Your task to perform on an android device: check out phone information Image 0: 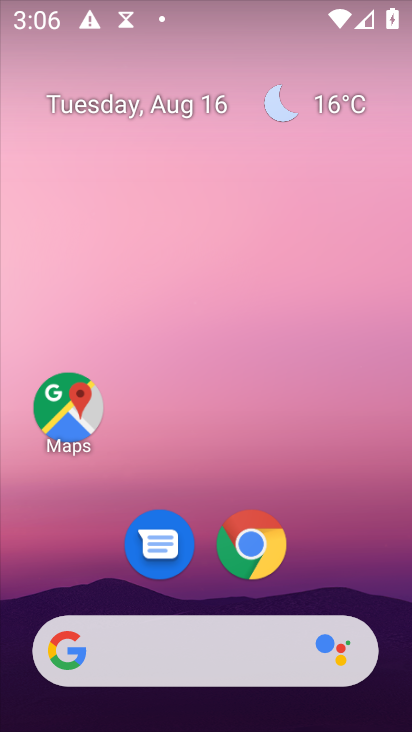
Step 0: drag from (181, 656) to (251, 2)
Your task to perform on an android device: check out phone information Image 1: 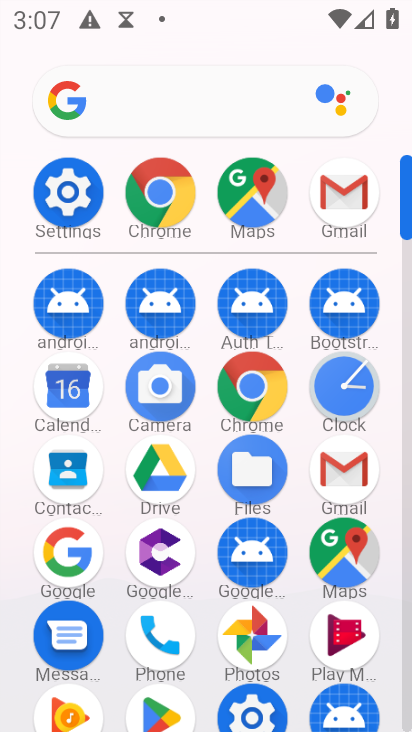
Step 1: click (65, 193)
Your task to perform on an android device: check out phone information Image 2: 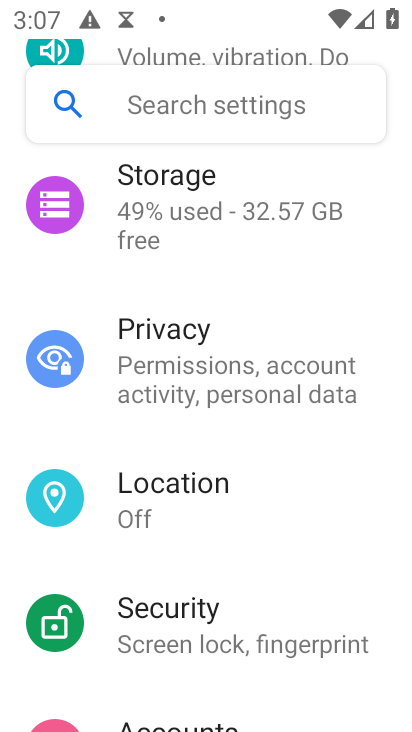
Step 2: drag from (167, 558) to (229, 438)
Your task to perform on an android device: check out phone information Image 3: 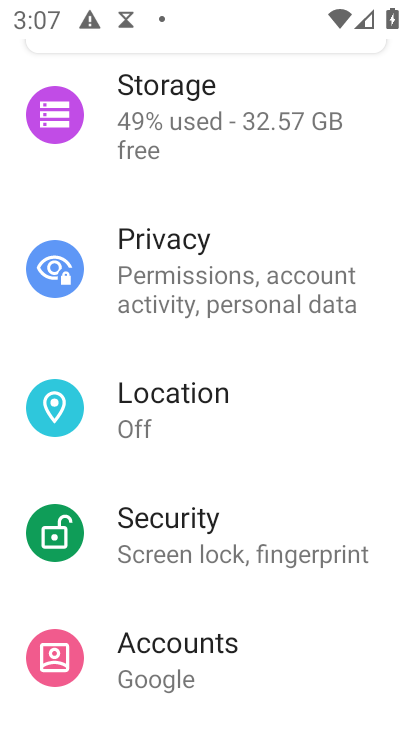
Step 3: drag from (153, 588) to (214, 478)
Your task to perform on an android device: check out phone information Image 4: 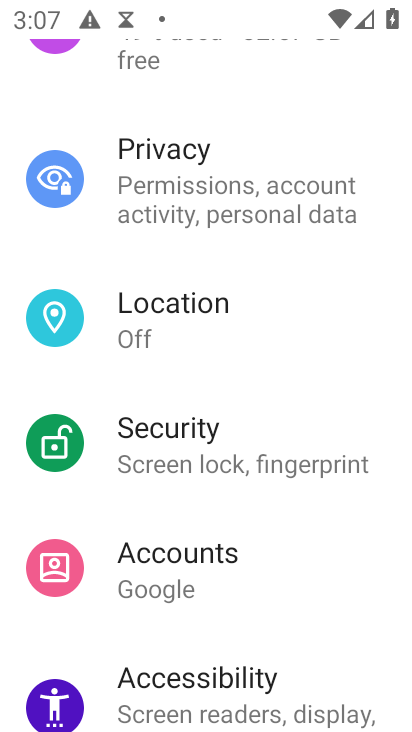
Step 4: drag from (153, 596) to (226, 474)
Your task to perform on an android device: check out phone information Image 5: 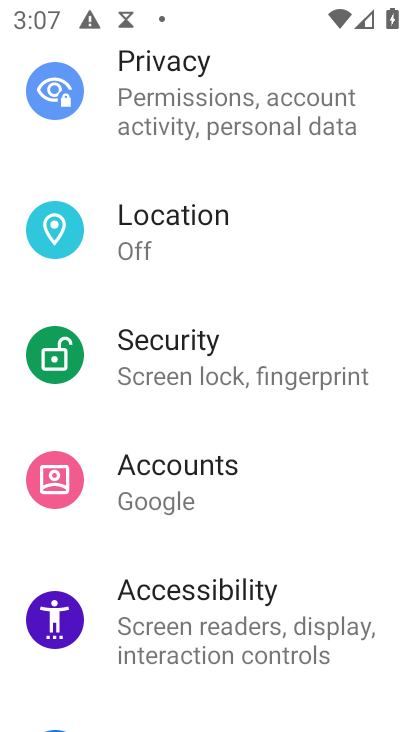
Step 5: drag from (173, 681) to (236, 501)
Your task to perform on an android device: check out phone information Image 6: 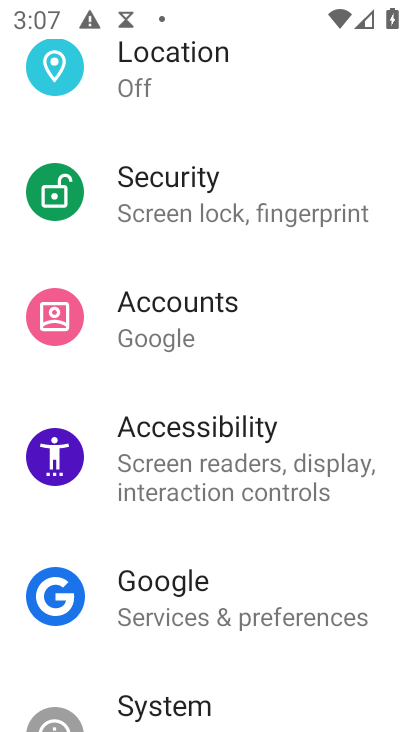
Step 6: drag from (131, 638) to (246, 453)
Your task to perform on an android device: check out phone information Image 7: 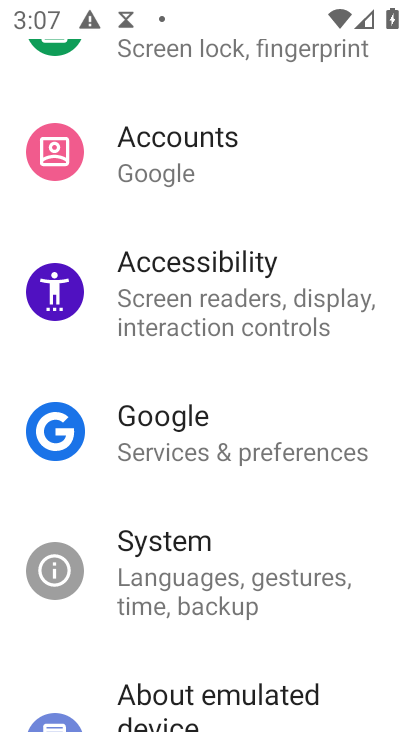
Step 7: drag from (125, 613) to (230, 465)
Your task to perform on an android device: check out phone information Image 8: 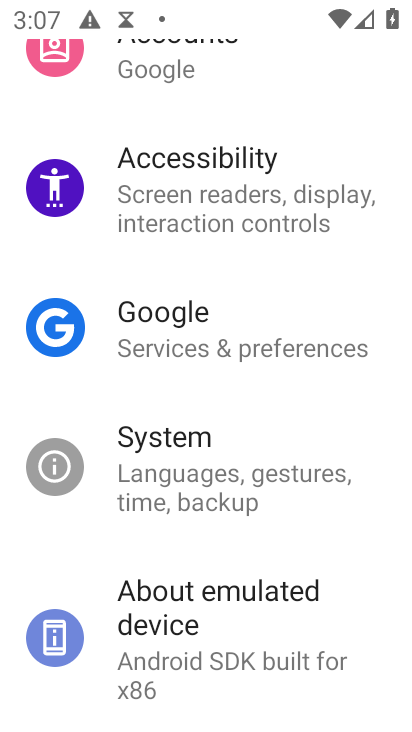
Step 8: click (165, 606)
Your task to perform on an android device: check out phone information Image 9: 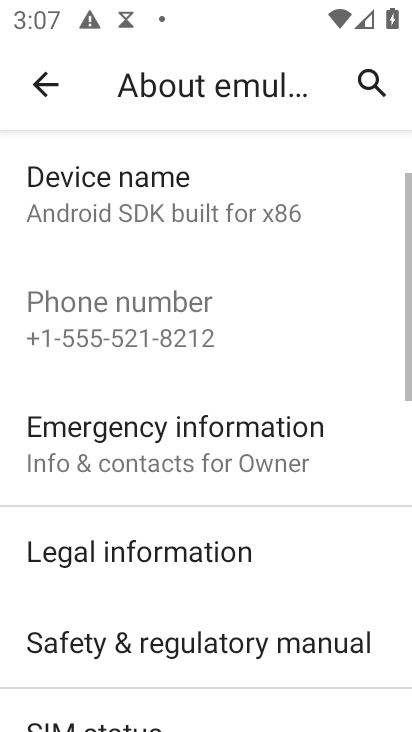
Step 9: task complete